Your task to perform on an android device: find snoozed emails in the gmail app Image 0: 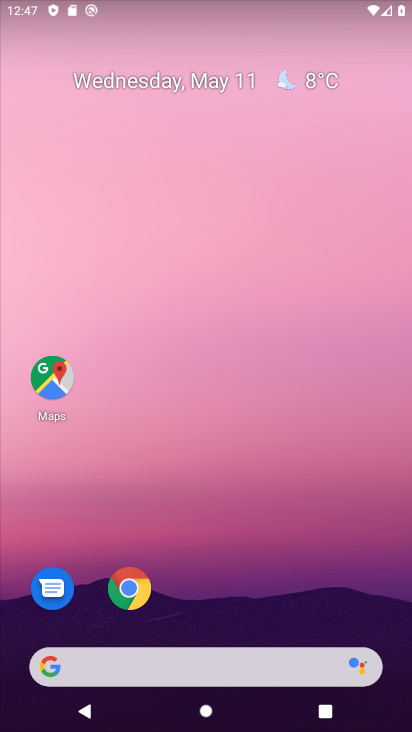
Step 0: drag from (322, 589) to (322, 330)
Your task to perform on an android device: find snoozed emails in the gmail app Image 1: 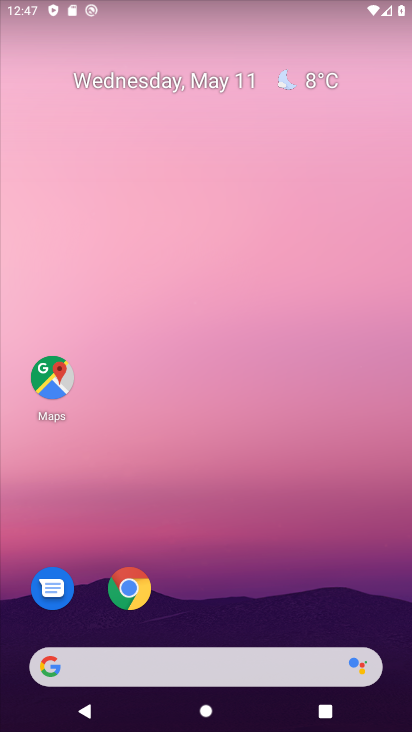
Step 1: drag from (310, 500) to (323, 45)
Your task to perform on an android device: find snoozed emails in the gmail app Image 2: 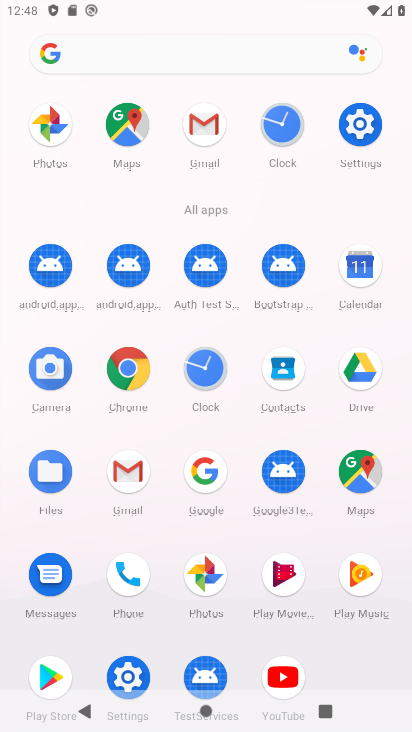
Step 2: click (115, 470)
Your task to perform on an android device: find snoozed emails in the gmail app Image 3: 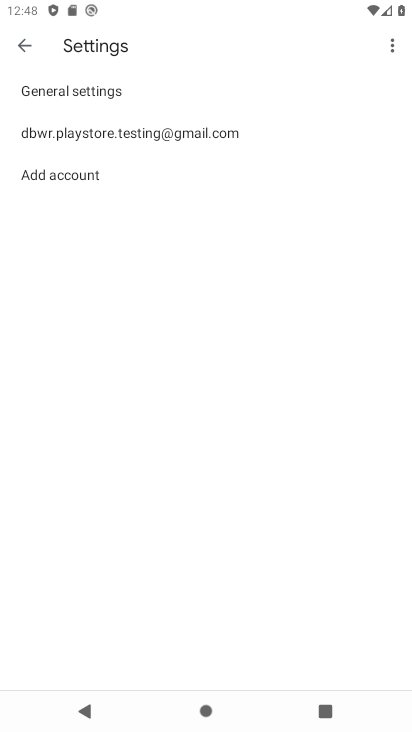
Step 3: drag from (167, 137) to (409, 372)
Your task to perform on an android device: find snoozed emails in the gmail app Image 4: 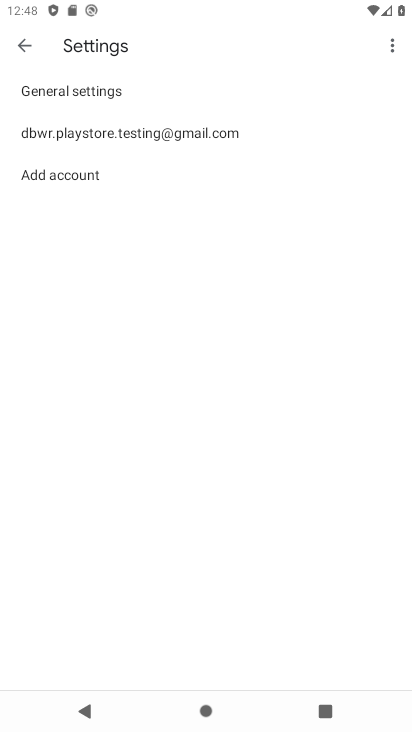
Step 4: press home button
Your task to perform on an android device: find snoozed emails in the gmail app Image 5: 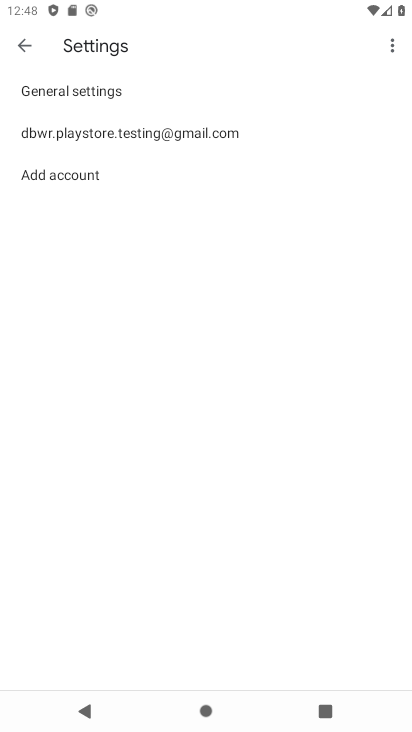
Step 5: drag from (409, 372) to (373, 232)
Your task to perform on an android device: find snoozed emails in the gmail app Image 6: 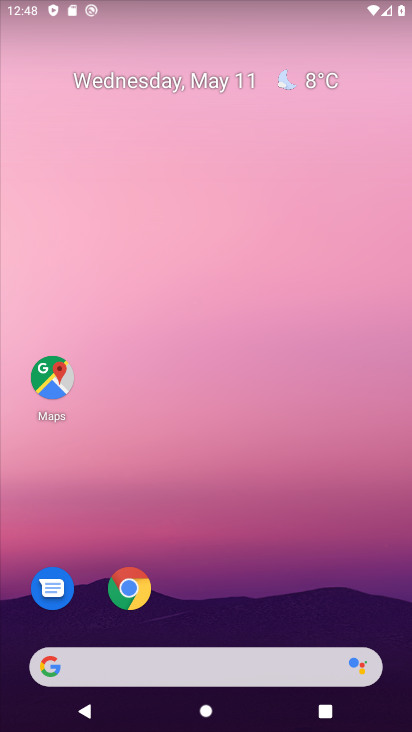
Step 6: drag from (250, 530) to (280, 97)
Your task to perform on an android device: find snoozed emails in the gmail app Image 7: 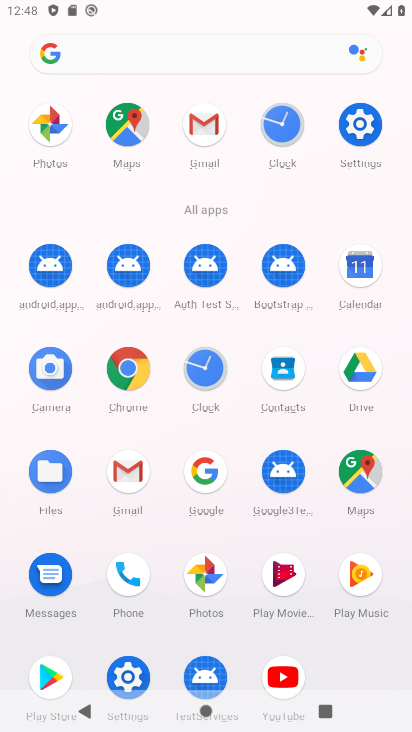
Step 7: click (202, 137)
Your task to perform on an android device: find snoozed emails in the gmail app Image 8: 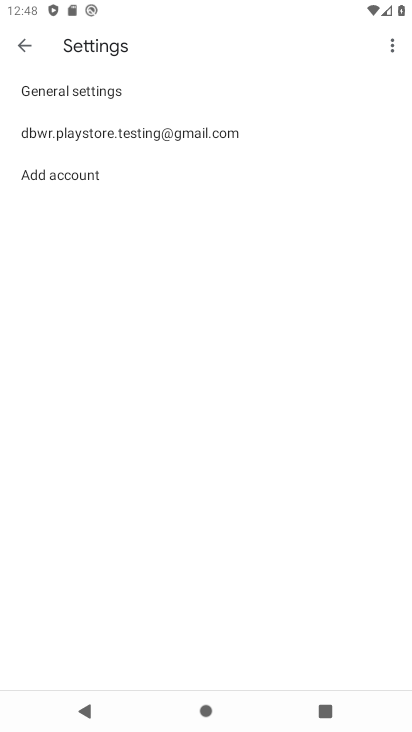
Step 8: press back button
Your task to perform on an android device: find snoozed emails in the gmail app Image 9: 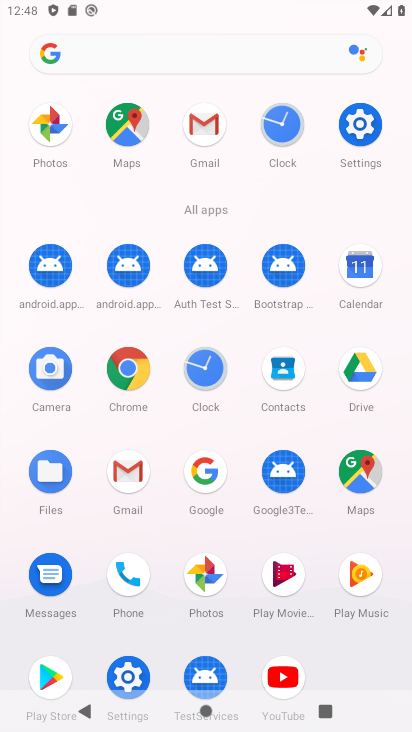
Step 9: click (200, 143)
Your task to perform on an android device: find snoozed emails in the gmail app Image 10: 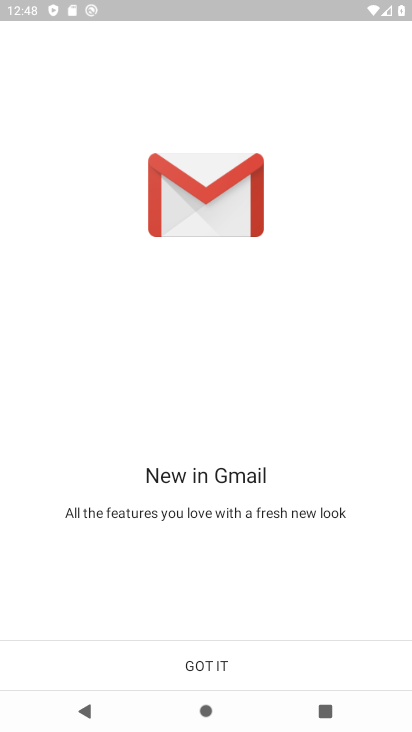
Step 10: click (242, 660)
Your task to perform on an android device: find snoozed emails in the gmail app Image 11: 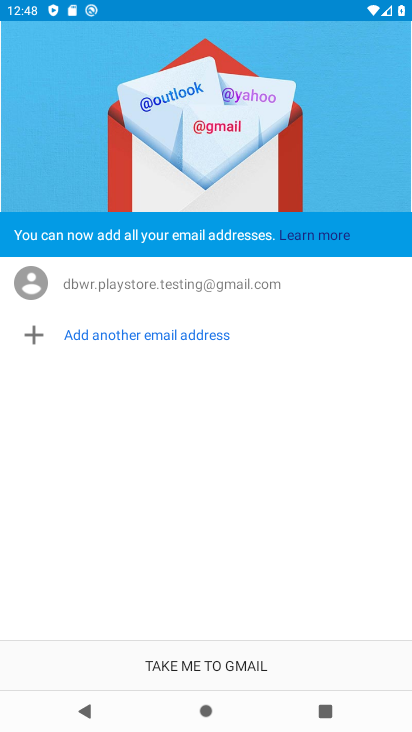
Step 11: click (242, 660)
Your task to perform on an android device: find snoozed emails in the gmail app Image 12: 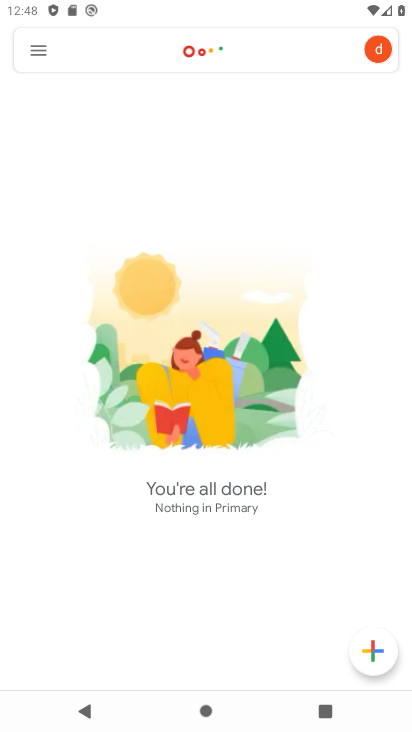
Step 12: click (34, 43)
Your task to perform on an android device: find snoozed emails in the gmail app Image 13: 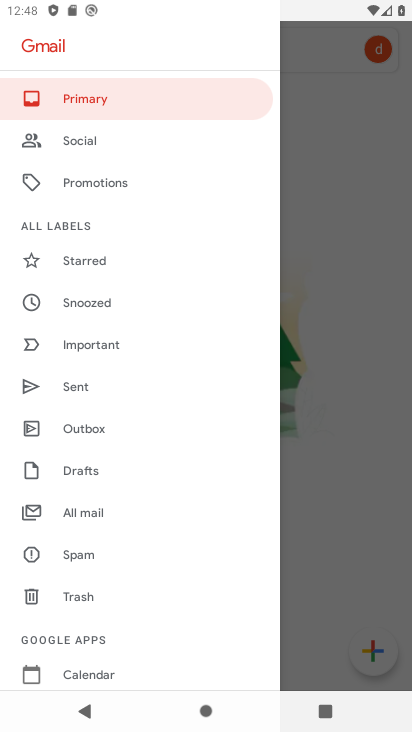
Step 13: click (91, 307)
Your task to perform on an android device: find snoozed emails in the gmail app Image 14: 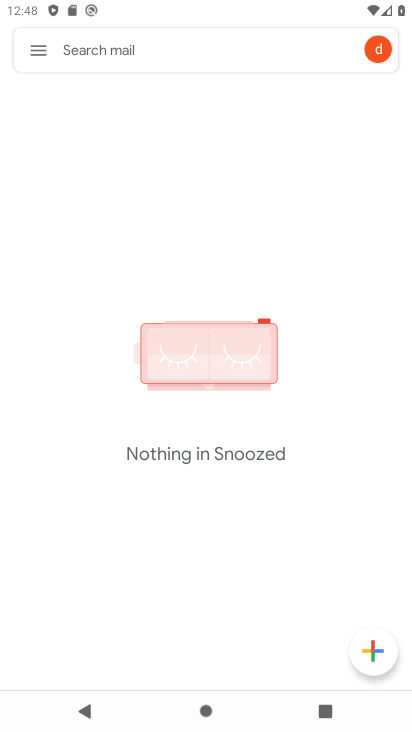
Step 14: task complete